Your task to perform on an android device: When is my next appointment? Image 0: 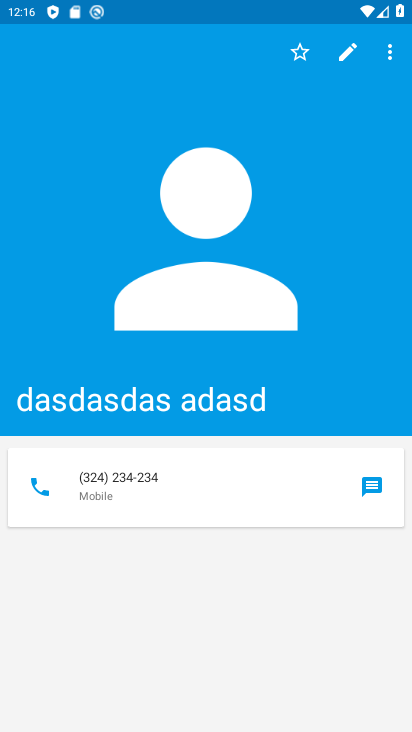
Step 0: press home button
Your task to perform on an android device: When is my next appointment? Image 1: 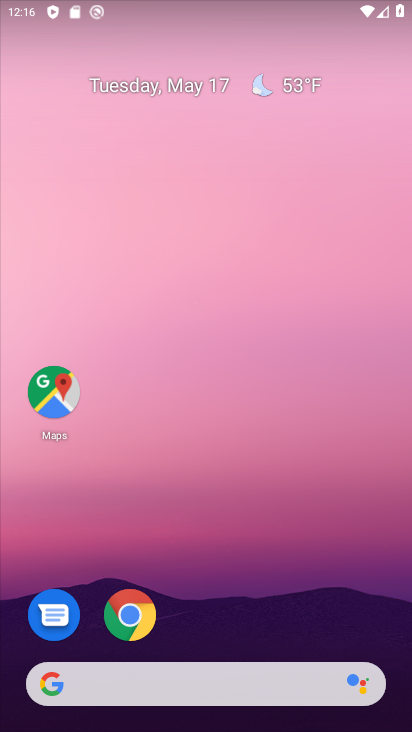
Step 1: drag from (293, 600) to (342, 102)
Your task to perform on an android device: When is my next appointment? Image 2: 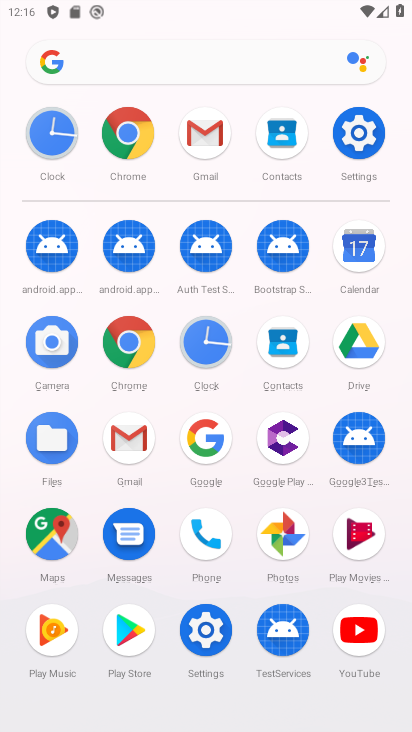
Step 2: click (289, 370)
Your task to perform on an android device: When is my next appointment? Image 3: 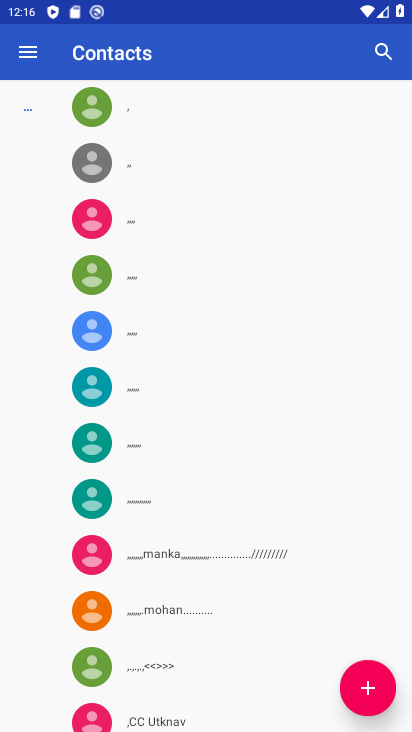
Step 3: press home button
Your task to perform on an android device: When is my next appointment? Image 4: 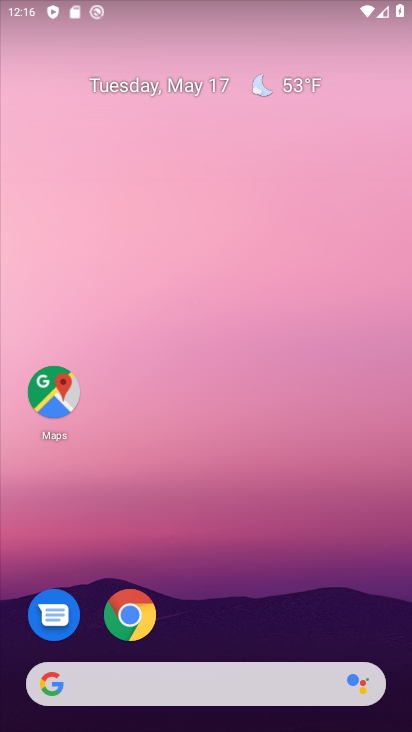
Step 4: drag from (286, 622) to (346, 23)
Your task to perform on an android device: When is my next appointment? Image 5: 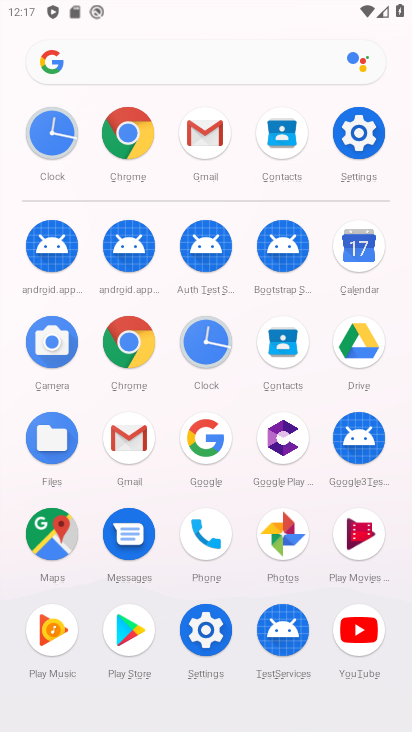
Step 5: click (344, 279)
Your task to perform on an android device: When is my next appointment? Image 6: 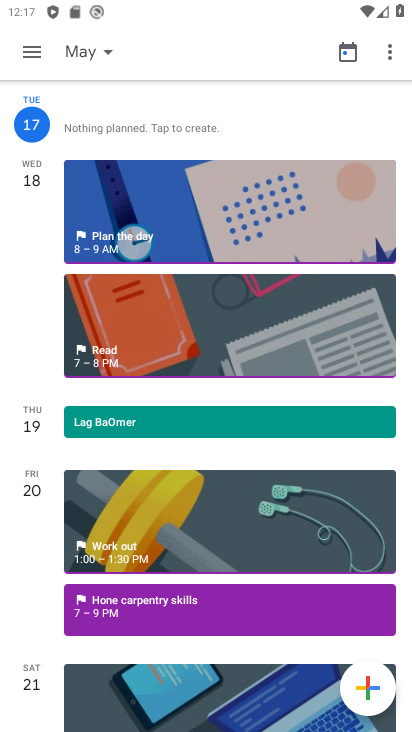
Step 6: task complete